Your task to perform on an android device: Open CNN.com Image 0: 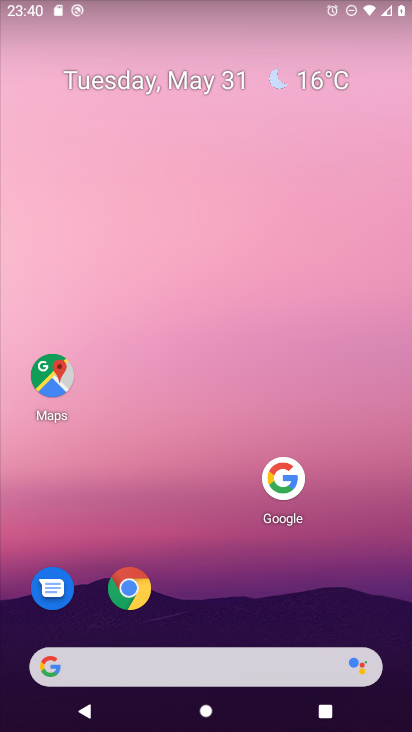
Step 0: press home button
Your task to perform on an android device: Open CNN.com Image 1: 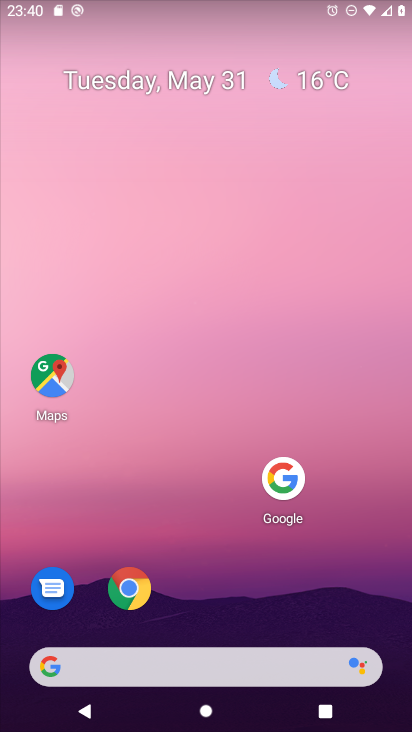
Step 1: click (139, 585)
Your task to perform on an android device: Open CNN.com Image 2: 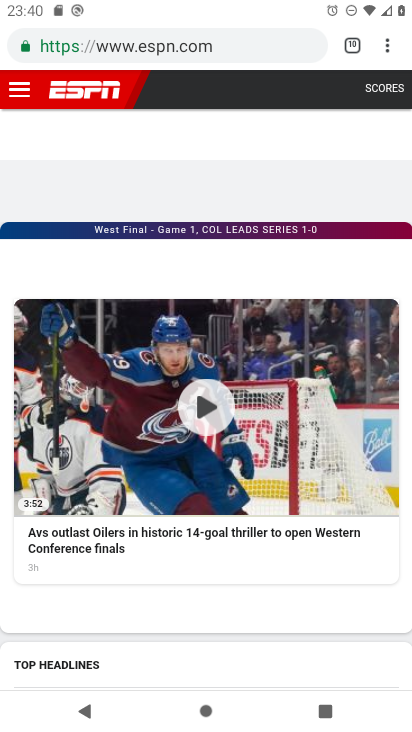
Step 2: drag from (383, 48) to (271, 97)
Your task to perform on an android device: Open CNN.com Image 3: 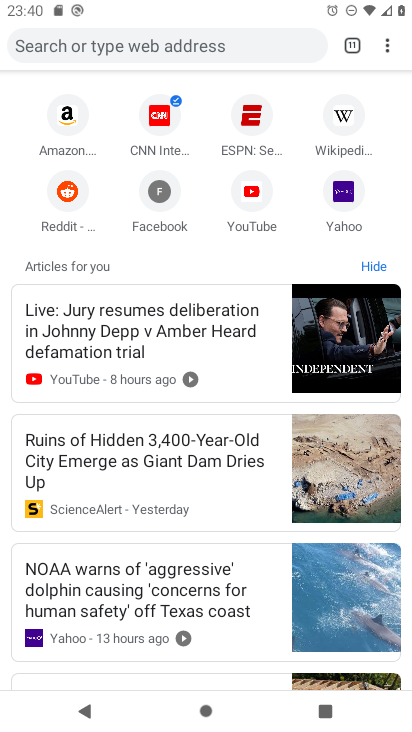
Step 3: click (152, 125)
Your task to perform on an android device: Open CNN.com Image 4: 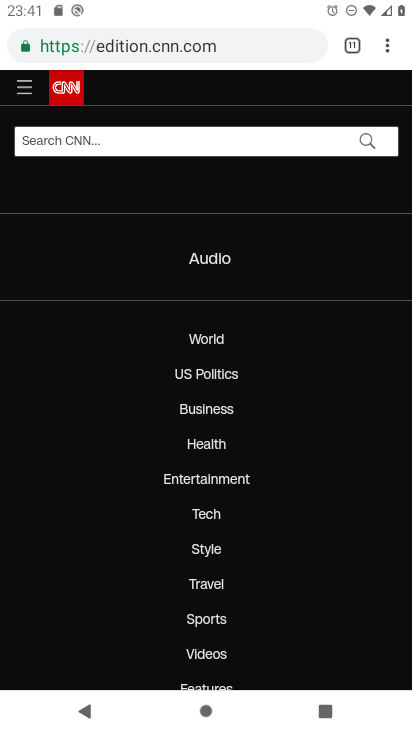
Step 4: task complete